Your task to perform on an android device: toggle location history Image 0: 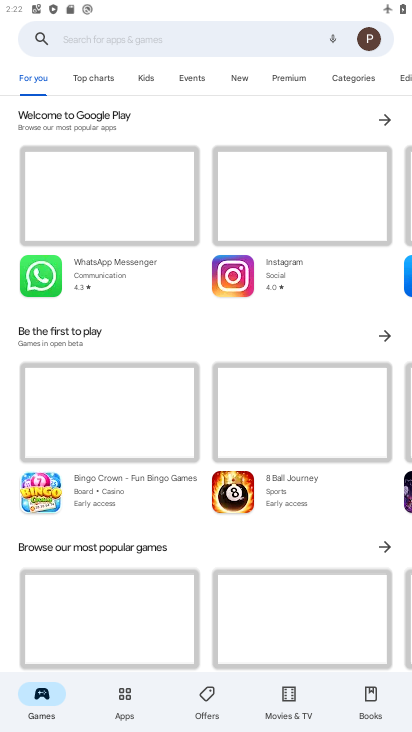
Step 0: press back button
Your task to perform on an android device: toggle location history Image 1: 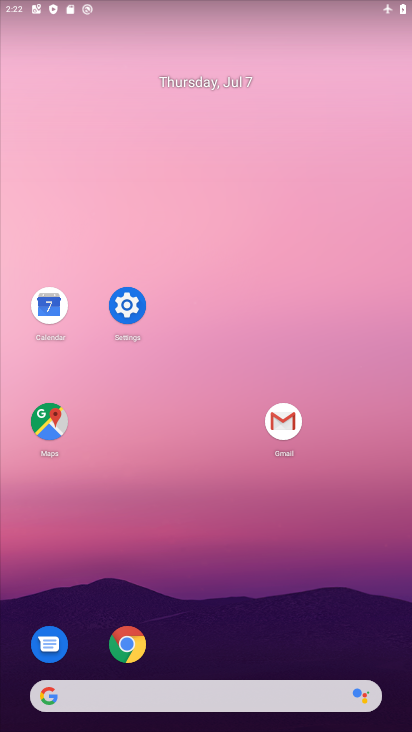
Step 1: drag from (406, 696) to (260, 7)
Your task to perform on an android device: toggle location history Image 2: 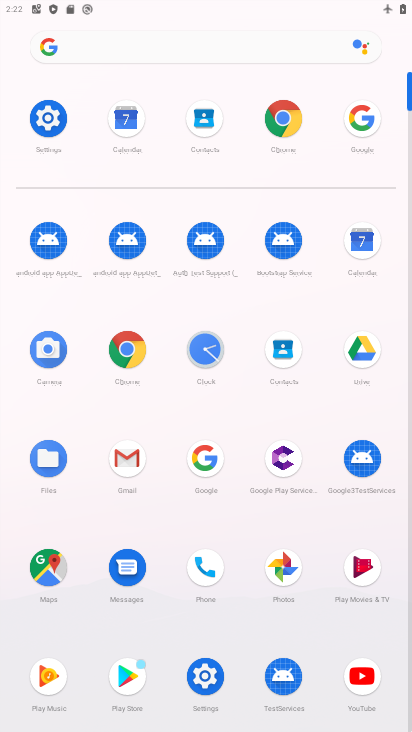
Step 2: click (38, 134)
Your task to perform on an android device: toggle location history Image 3: 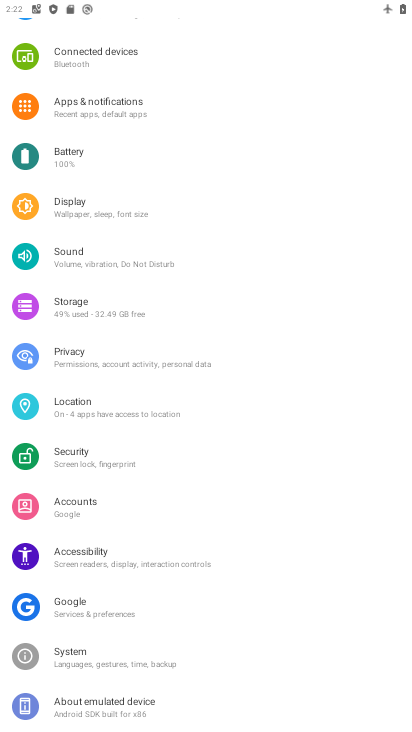
Step 3: click (69, 199)
Your task to perform on an android device: toggle location history Image 4: 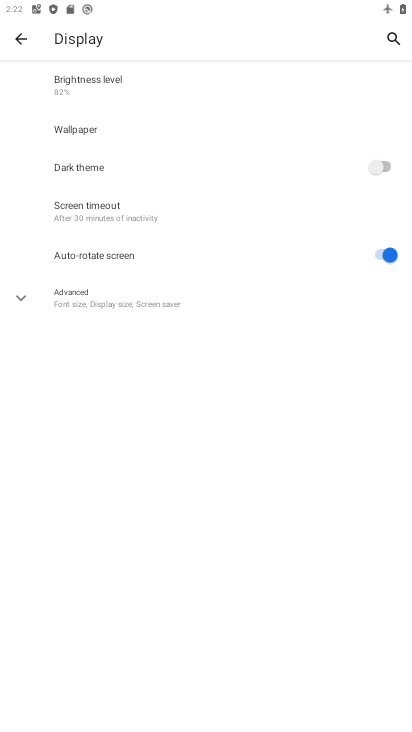
Step 4: click (70, 292)
Your task to perform on an android device: toggle location history Image 5: 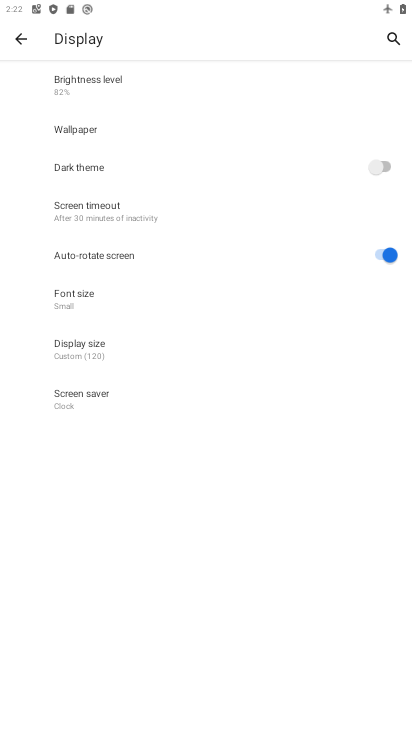
Step 5: click (69, 290)
Your task to perform on an android device: toggle location history Image 6: 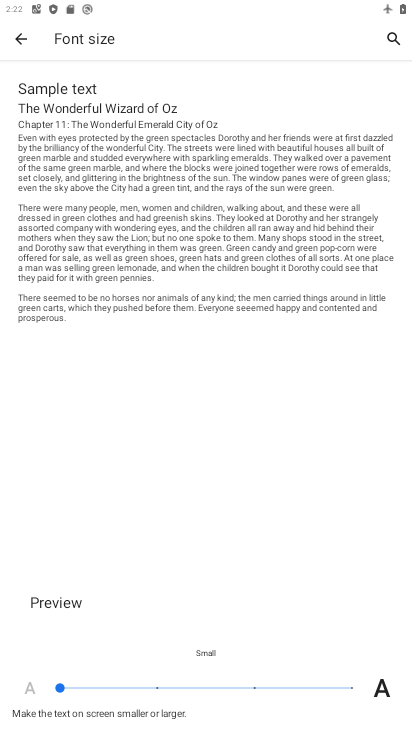
Step 6: drag from (63, 691) to (256, 695)
Your task to perform on an android device: toggle location history Image 7: 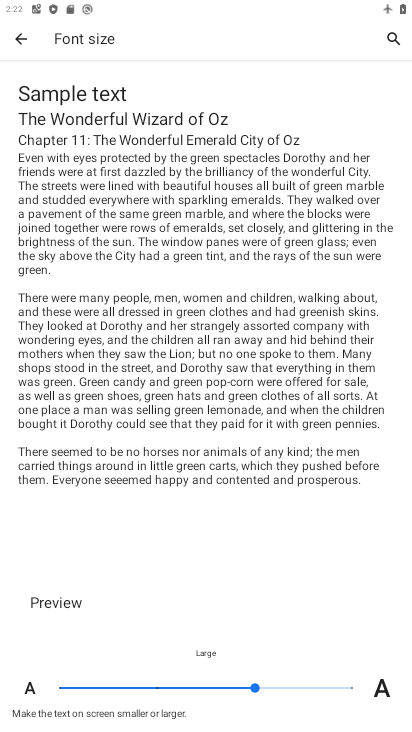
Step 7: drag from (256, 689) to (348, 681)
Your task to perform on an android device: toggle location history Image 8: 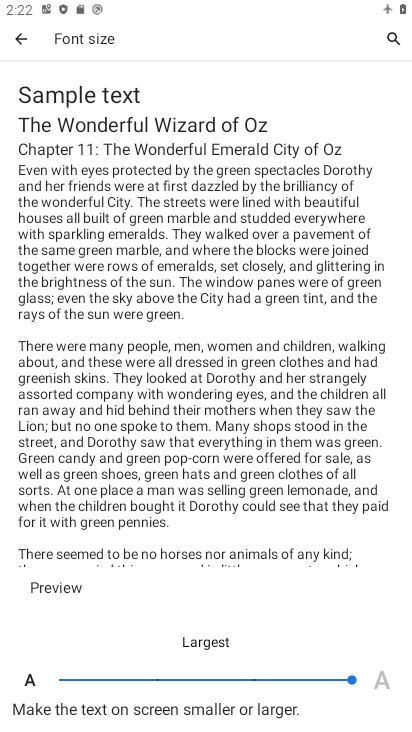
Step 8: click (201, 643)
Your task to perform on an android device: toggle location history Image 9: 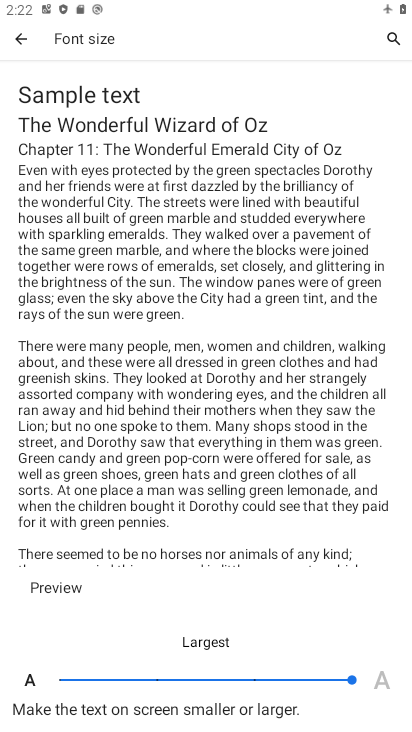
Step 9: click (20, 38)
Your task to perform on an android device: toggle location history Image 10: 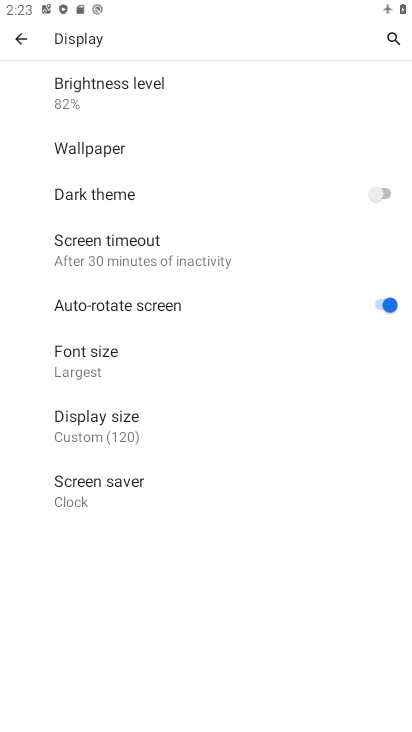
Step 10: click (25, 36)
Your task to perform on an android device: toggle location history Image 11: 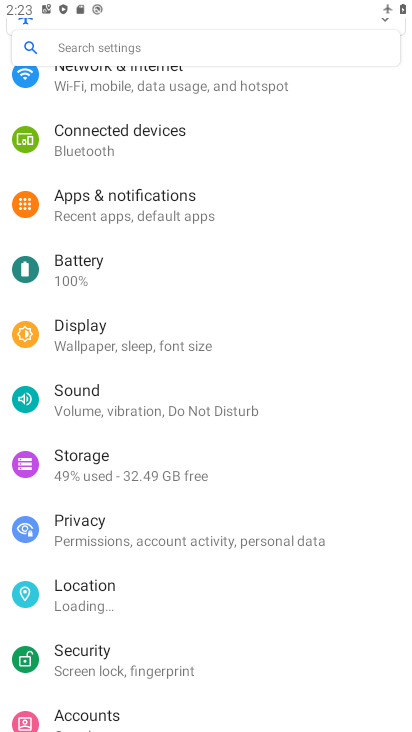
Step 11: drag from (251, 669) to (248, 233)
Your task to perform on an android device: toggle location history Image 12: 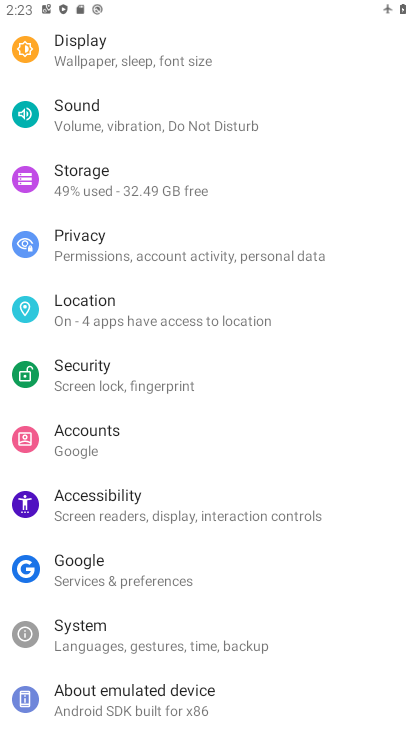
Step 12: click (69, 312)
Your task to perform on an android device: toggle location history Image 13: 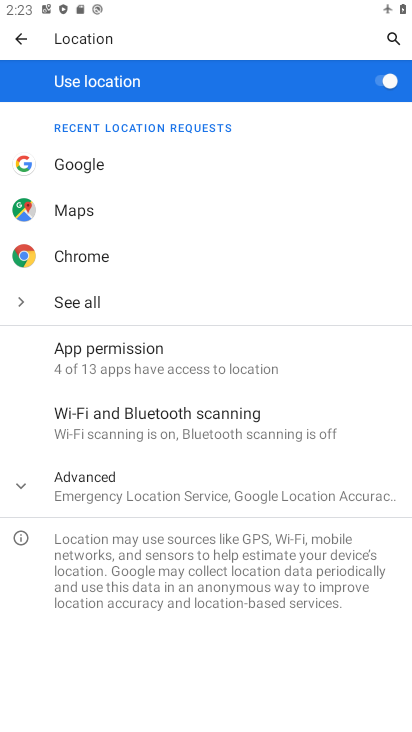
Step 13: click (28, 494)
Your task to perform on an android device: toggle location history Image 14: 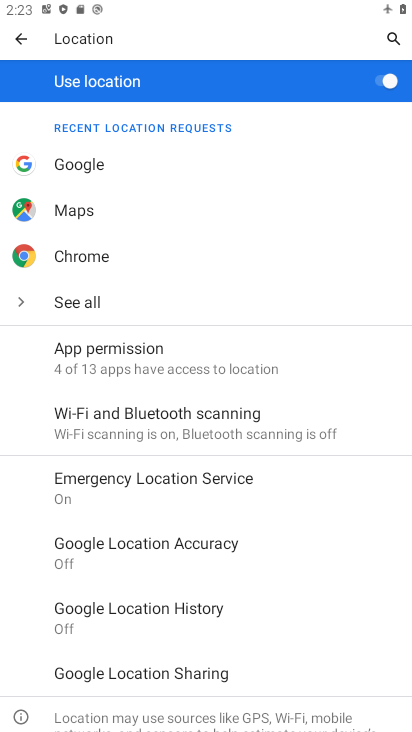
Step 14: click (108, 602)
Your task to perform on an android device: toggle location history Image 15: 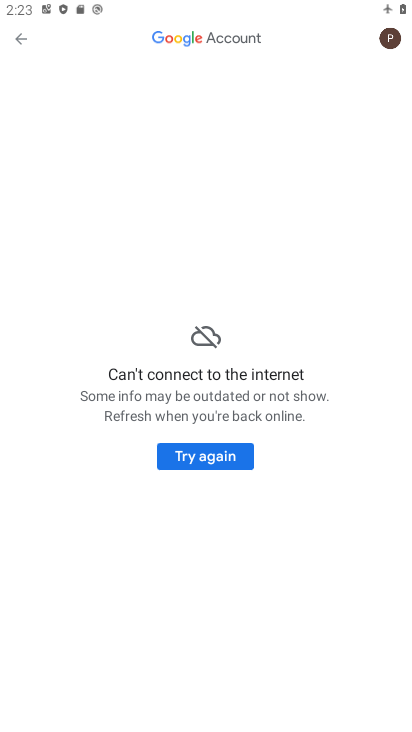
Step 15: task complete